Your task to perform on an android device: Do I have any events this weekend? Image 0: 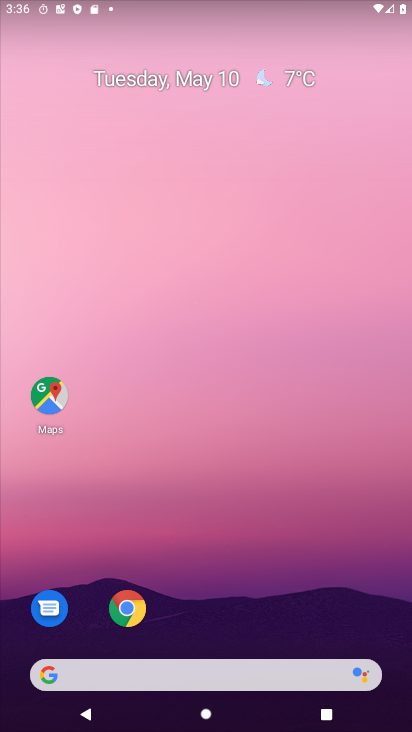
Step 0: drag from (293, 640) to (303, 10)
Your task to perform on an android device: Do I have any events this weekend? Image 1: 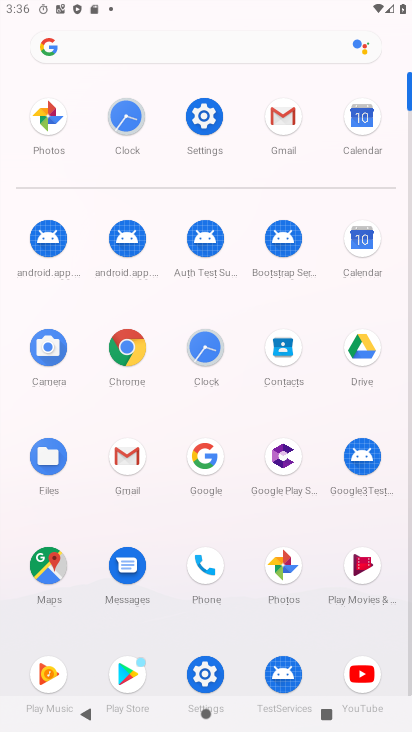
Step 1: click (359, 119)
Your task to perform on an android device: Do I have any events this weekend? Image 2: 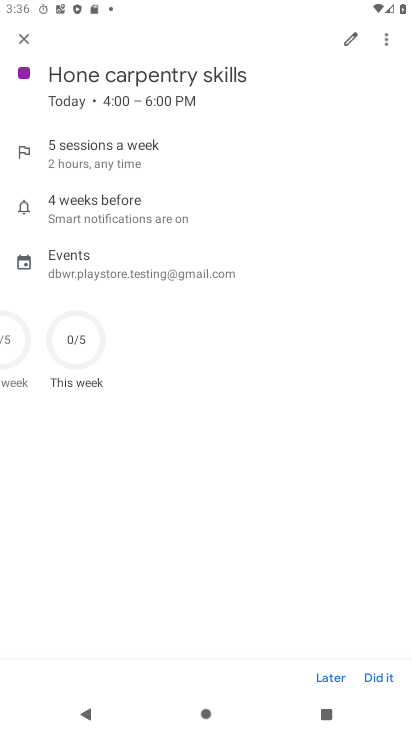
Step 2: click (18, 41)
Your task to perform on an android device: Do I have any events this weekend? Image 3: 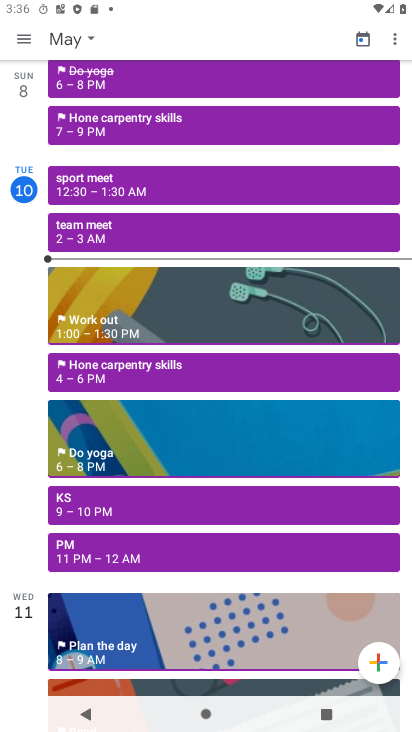
Step 3: drag from (159, 534) to (163, 186)
Your task to perform on an android device: Do I have any events this weekend? Image 4: 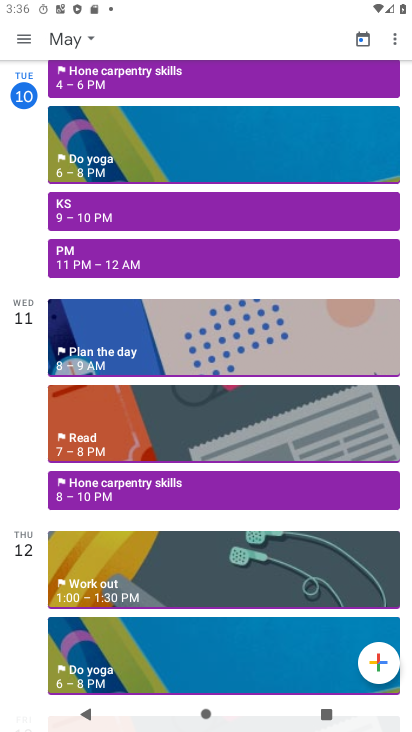
Step 4: drag from (156, 556) to (166, 161)
Your task to perform on an android device: Do I have any events this weekend? Image 5: 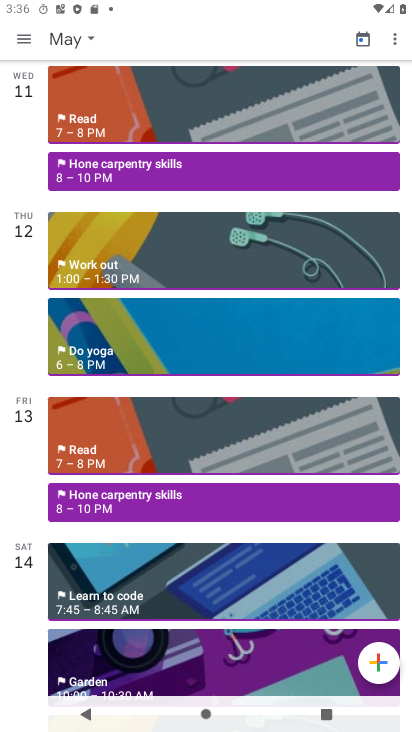
Step 5: drag from (121, 565) to (145, 182)
Your task to perform on an android device: Do I have any events this weekend? Image 6: 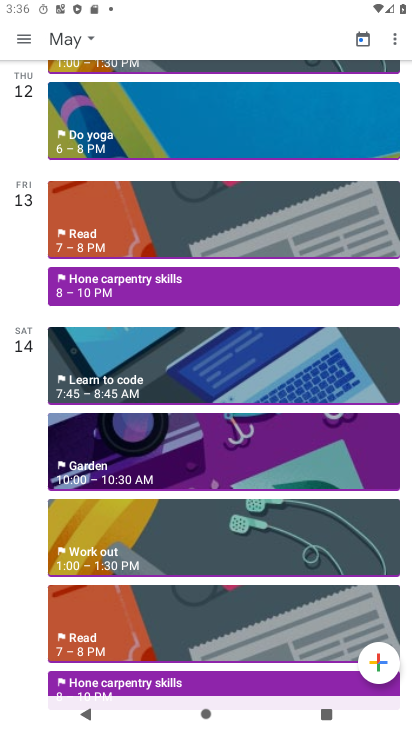
Step 6: drag from (184, 514) to (197, 241)
Your task to perform on an android device: Do I have any events this weekend? Image 7: 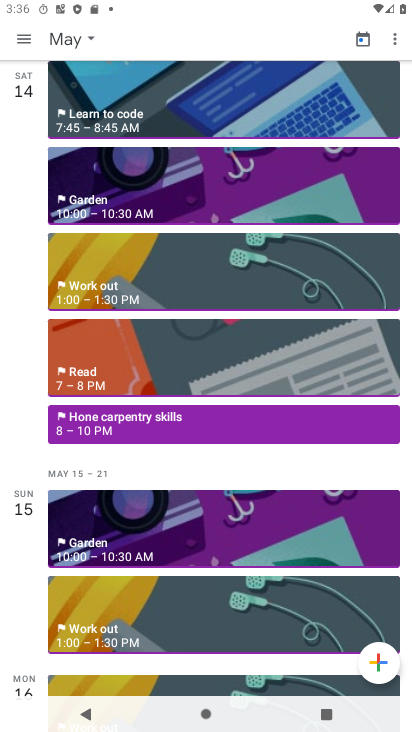
Step 7: click (149, 429)
Your task to perform on an android device: Do I have any events this weekend? Image 8: 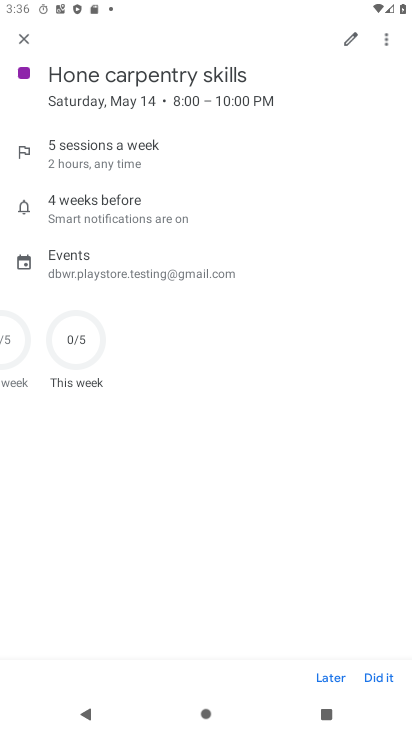
Step 8: task complete